Your task to perform on an android device: Open CNN.com Image 0: 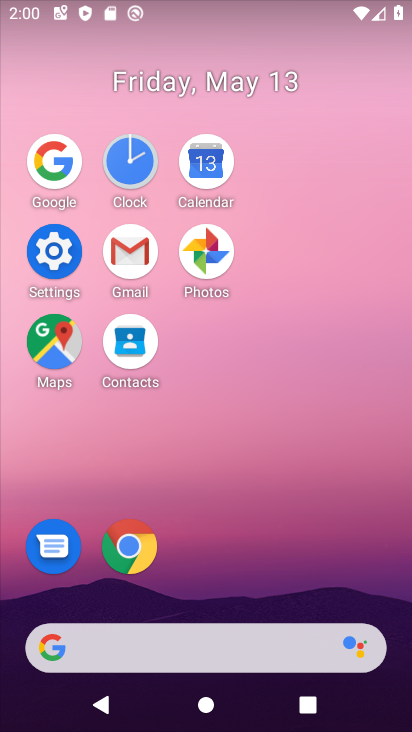
Step 0: click (130, 550)
Your task to perform on an android device: Open CNN.com Image 1: 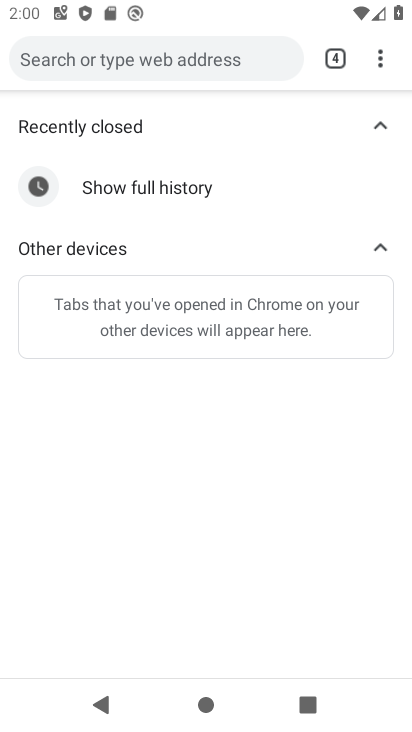
Step 1: click (331, 51)
Your task to perform on an android device: Open CNN.com Image 2: 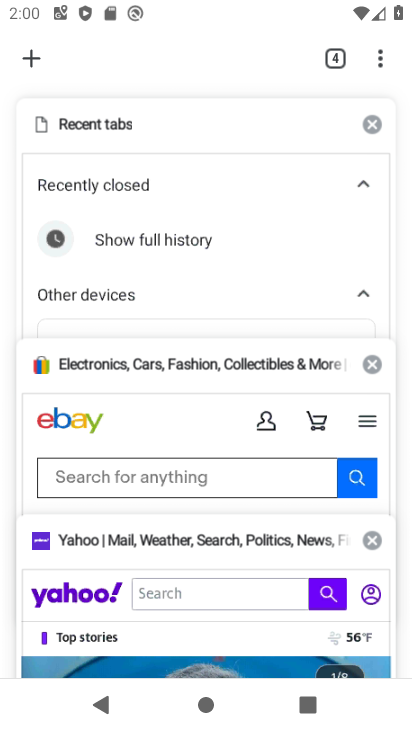
Step 2: drag from (196, 191) to (170, 479)
Your task to perform on an android device: Open CNN.com Image 3: 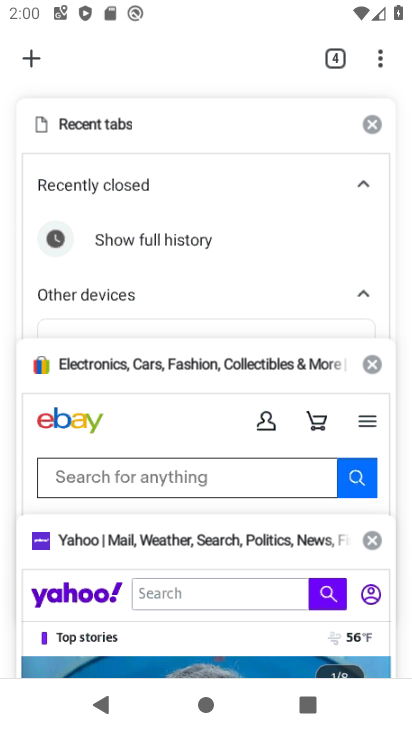
Step 3: click (28, 62)
Your task to perform on an android device: Open CNN.com Image 4: 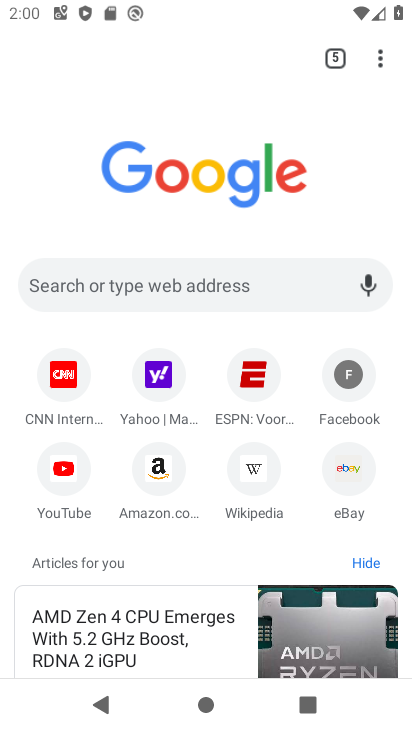
Step 4: click (165, 282)
Your task to perform on an android device: Open CNN.com Image 5: 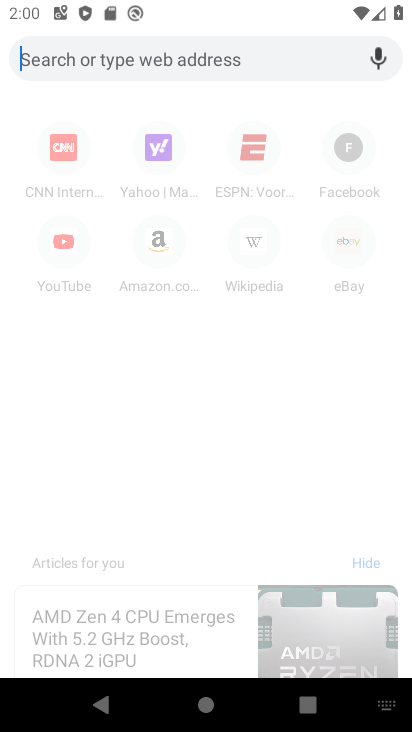
Step 5: click (70, 163)
Your task to perform on an android device: Open CNN.com Image 6: 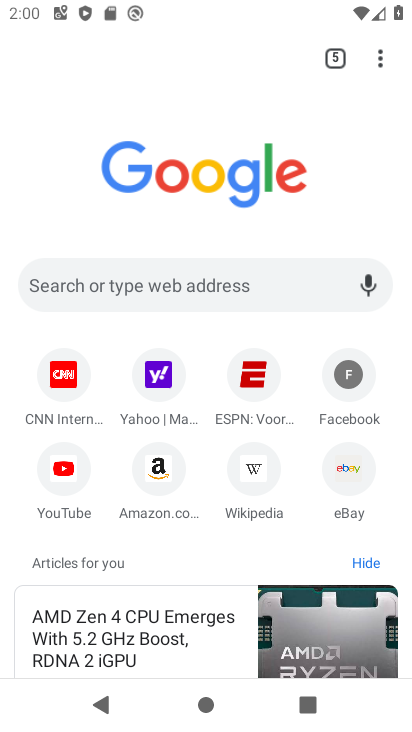
Step 6: click (42, 385)
Your task to perform on an android device: Open CNN.com Image 7: 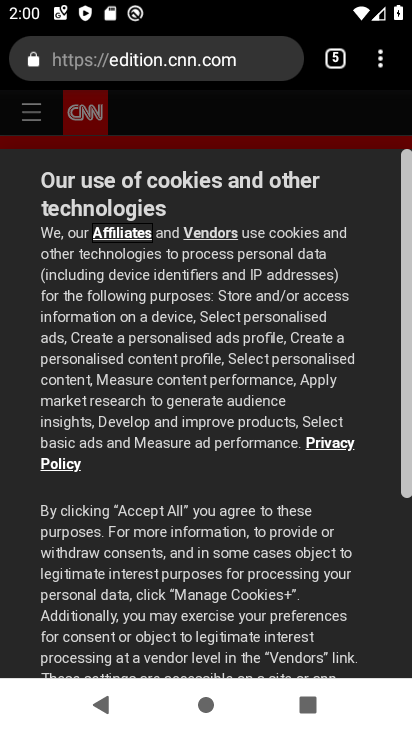
Step 7: task complete